Your task to perform on an android device: Find coffee shops on Maps Image 0: 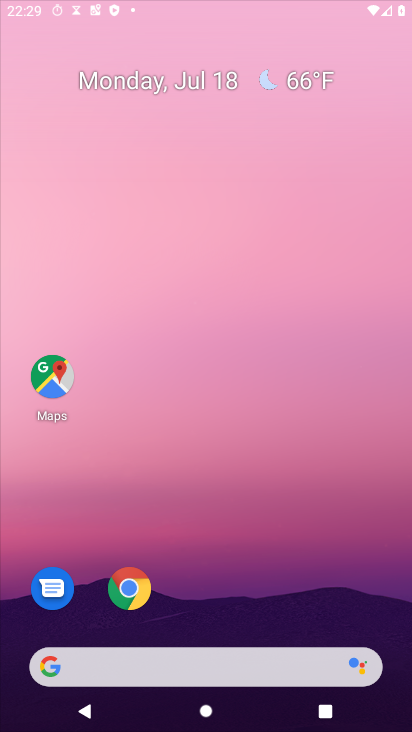
Step 0: press home button
Your task to perform on an android device: Find coffee shops on Maps Image 1: 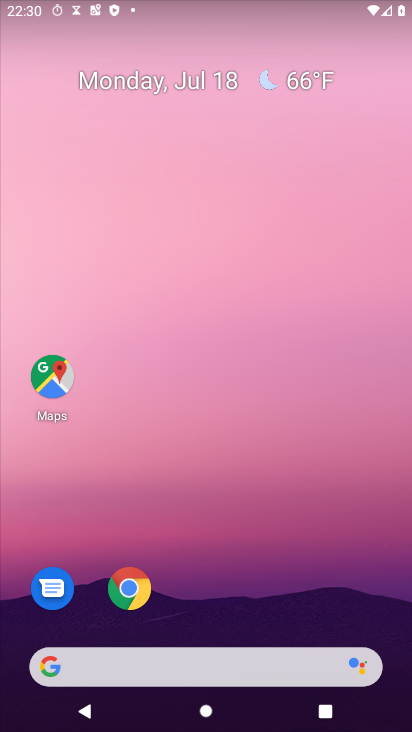
Step 1: click (51, 380)
Your task to perform on an android device: Find coffee shops on Maps Image 2: 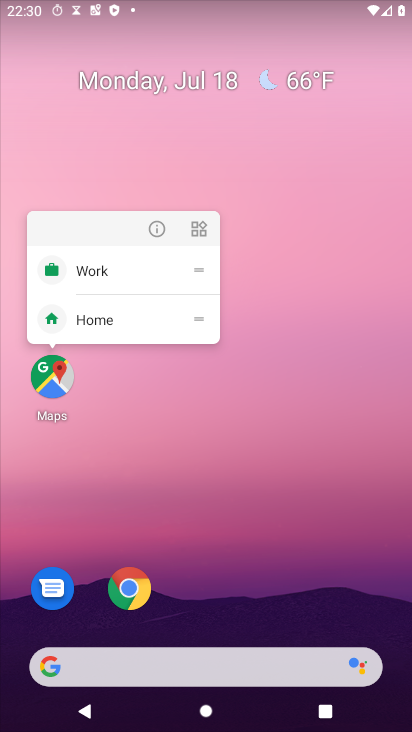
Step 2: click (54, 384)
Your task to perform on an android device: Find coffee shops on Maps Image 3: 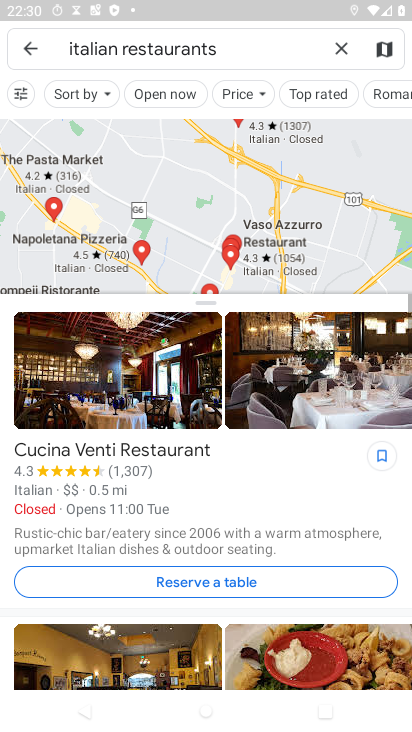
Step 3: click (344, 47)
Your task to perform on an android device: Find coffee shops on Maps Image 4: 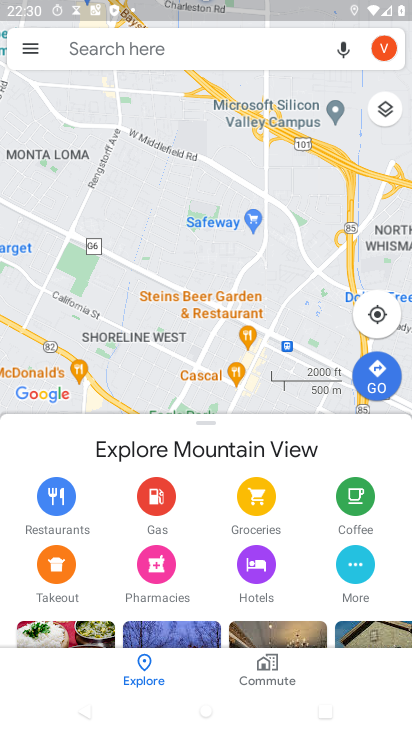
Step 4: click (202, 53)
Your task to perform on an android device: Find coffee shops on Maps Image 5: 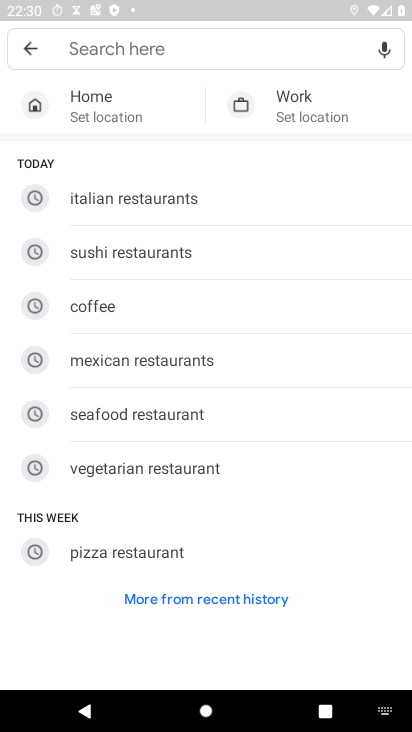
Step 5: click (109, 303)
Your task to perform on an android device: Find coffee shops on Maps Image 6: 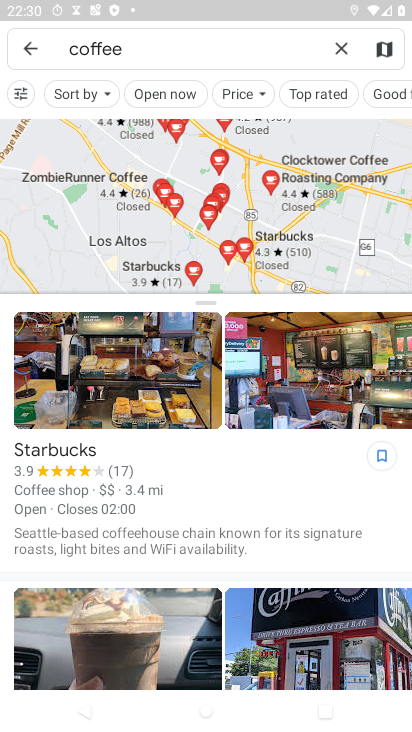
Step 6: task complete